Your task to perform on an android device: Do I have any events this weekend? Image 0: 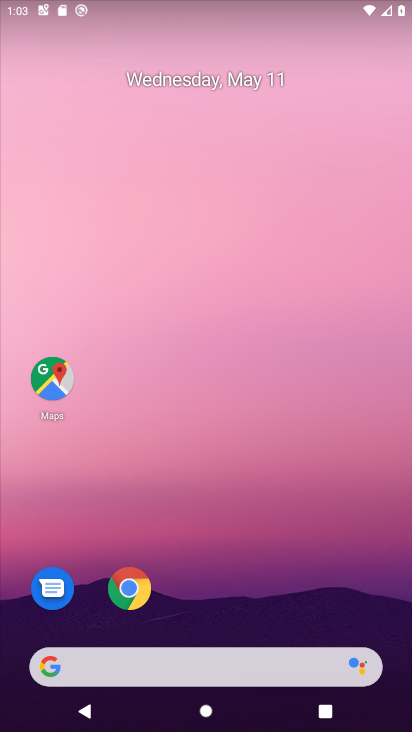
Step 0: press home button
Your task to perform on an android device: Do I have any events this weekend? Image 1: 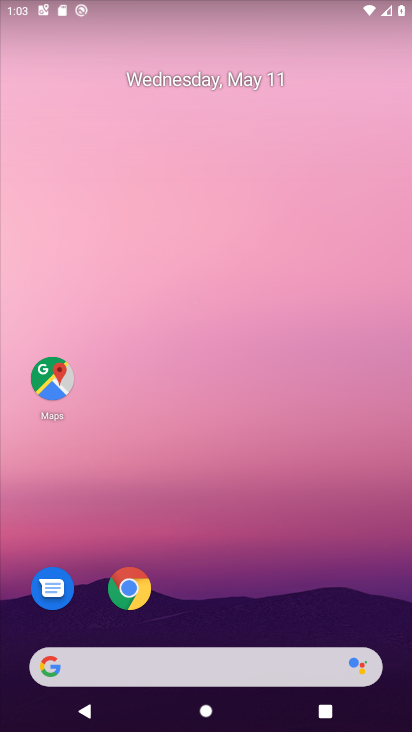
Step 1: drag from (179, 651) to (314, 239)
Your task to perform on an android device: Do I have any events this weekend? Image 2: 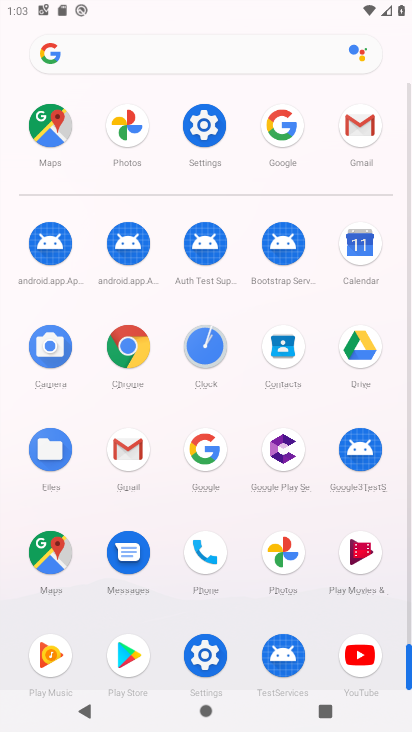
Step 2: click (353, 248)
Your task to perform on an android device: Do I have any events this weekend? Image 3: 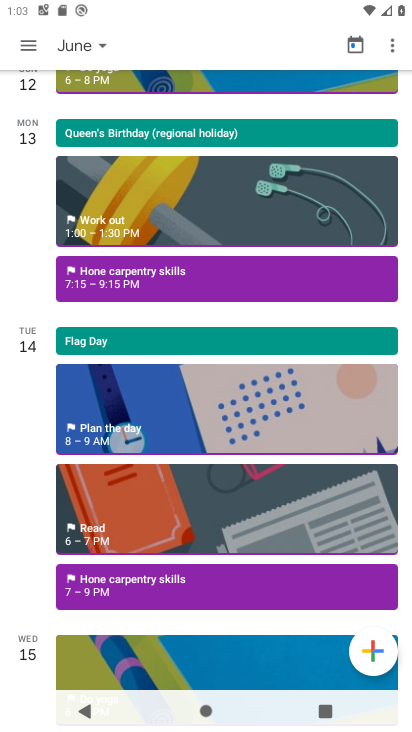
Step 3: click (85, 51)
Your task to perform on an android device: Do I have any events this weekend? Image 4: 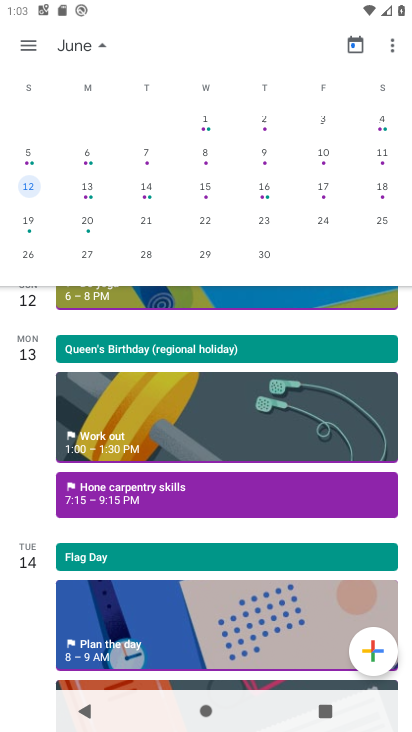
Step 4: click (89, 47)
Your task to perform on an android device: Do I have any events this weekend? Image 5: 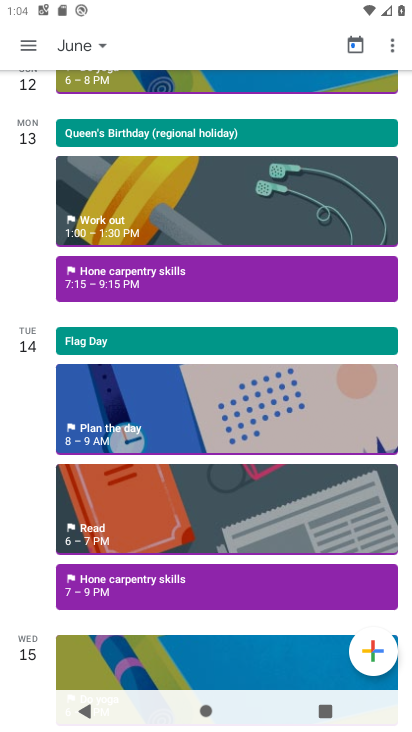
Step 5: click (74, 52)
Your task to perform on an android device: Do I have any events this weekend? Image 6: 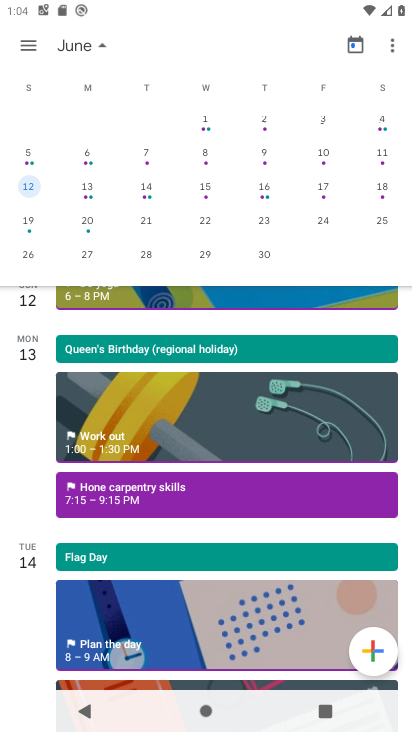
Step 6: drag from (47, 131) to (403, 146)
Your task to perform on an android device: Do I have any events this weekend? Image 7: 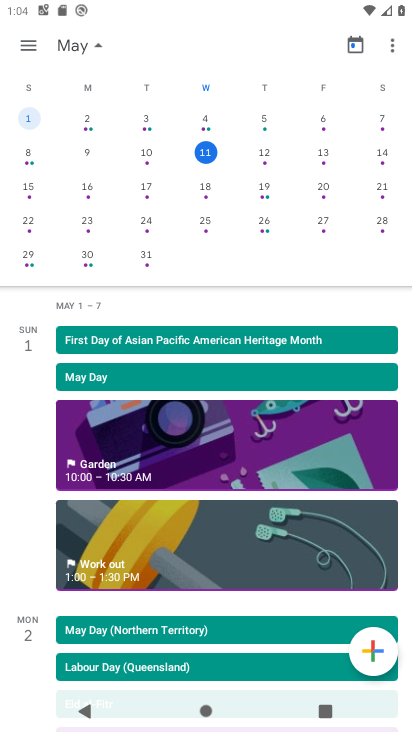
Step 7: click (325, 155)
Your task to perform on an android device: Do I have any events this weekend? Image 8: 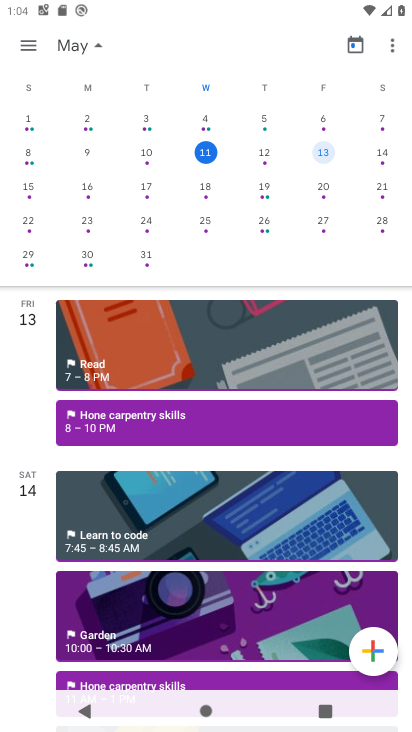
Step 8: click (393, 154)
Your task to perform on an android device: Do I have any events this weekend? Image 9: 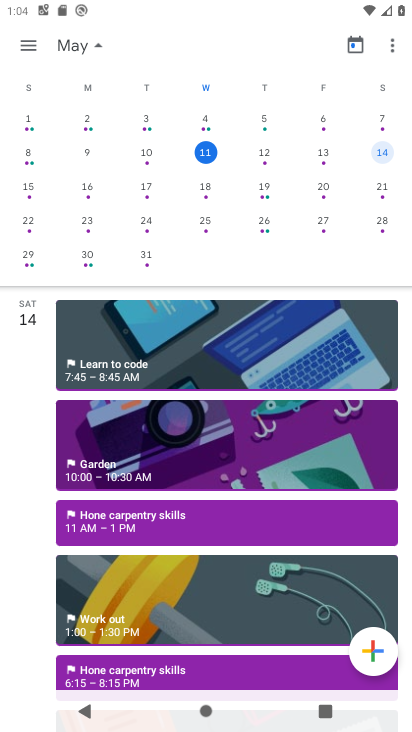
Step 9: drag from (237, 579) to (252, 377)
Your task to perform on an android device: Do I have any events this weekend? Image 10: 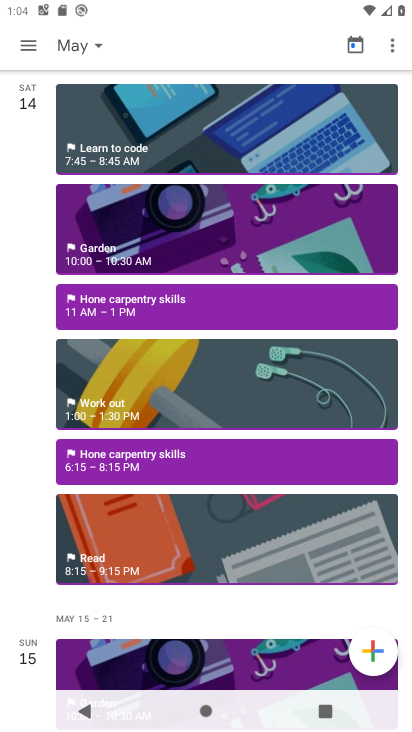
Step 10: click (180, 147)
Your task to perform on an android device: Do I have any events this weekend? Image 11: 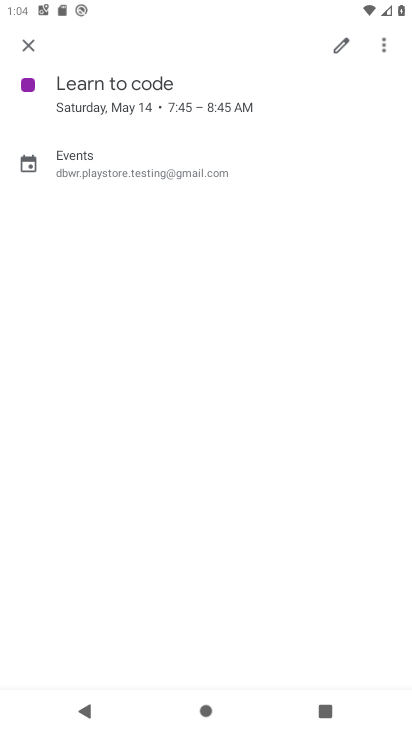
Step 11: task complete